Your task to perform on an android device: Search for the best rated headphones on Amazon. Image 0: 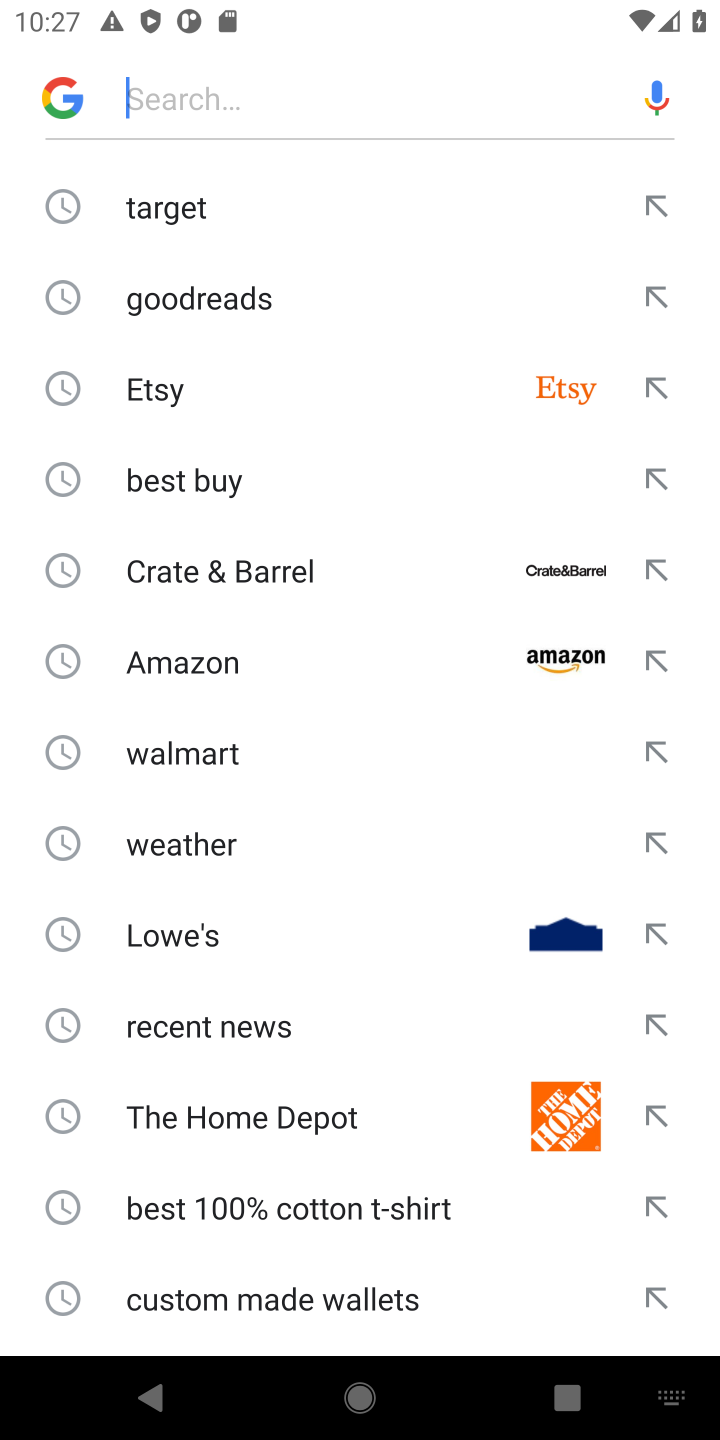
Step 0: click (208, 655)
Your task to perform on an android device: Search for the best rated headphones on Amazon. Image 1: 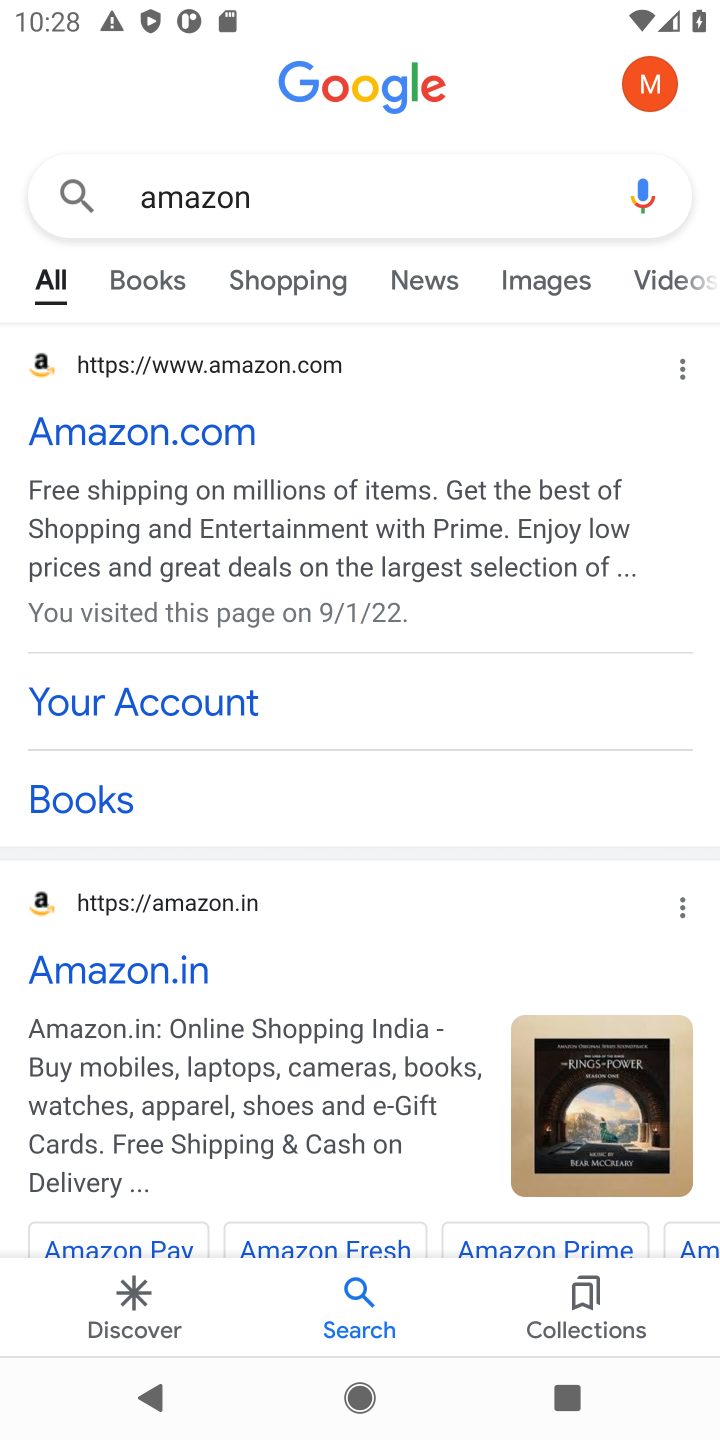
Step 1: click (150, 433)
Your task to perform on an android device: Search for the best rated headphones on Amazon. Image 2: 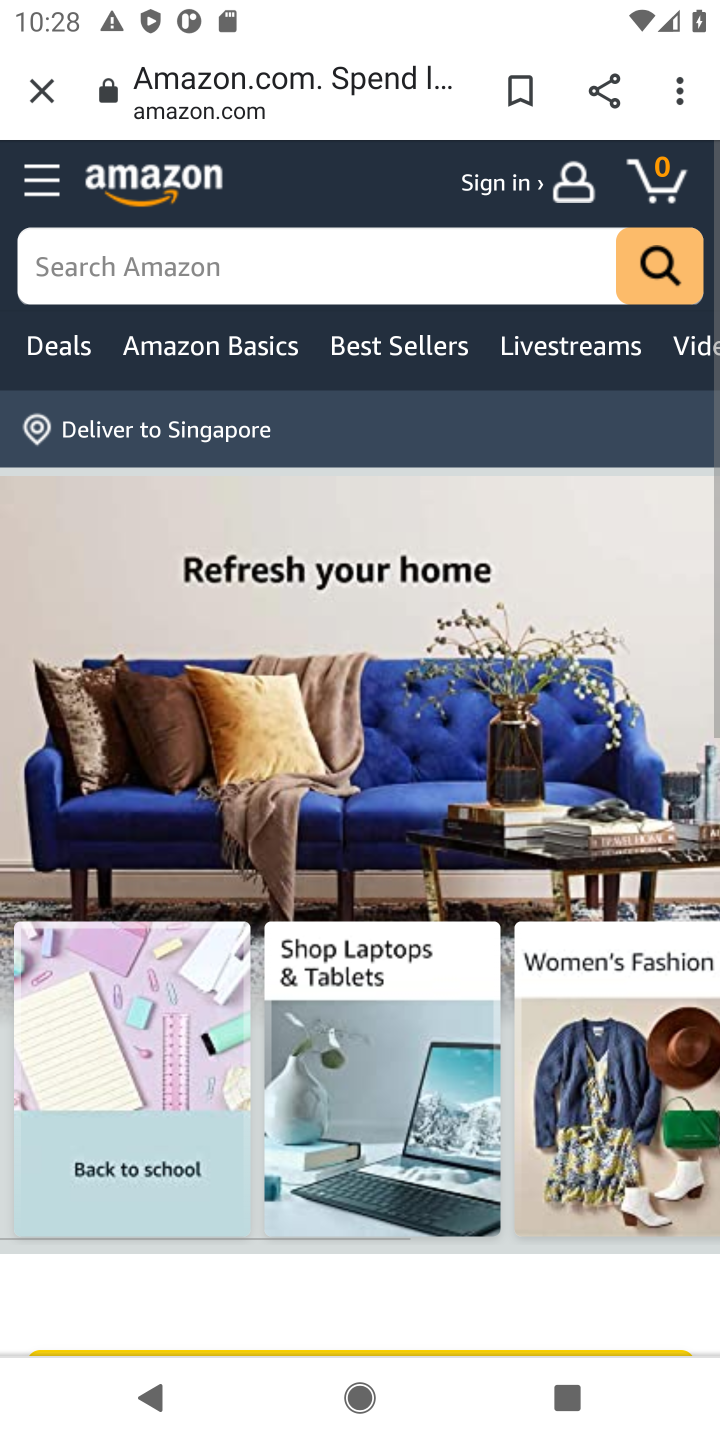
Step 2: click (317, 260)
Your task to perform on an android device: Search for the best rated headphones on Amazon. Image 3: 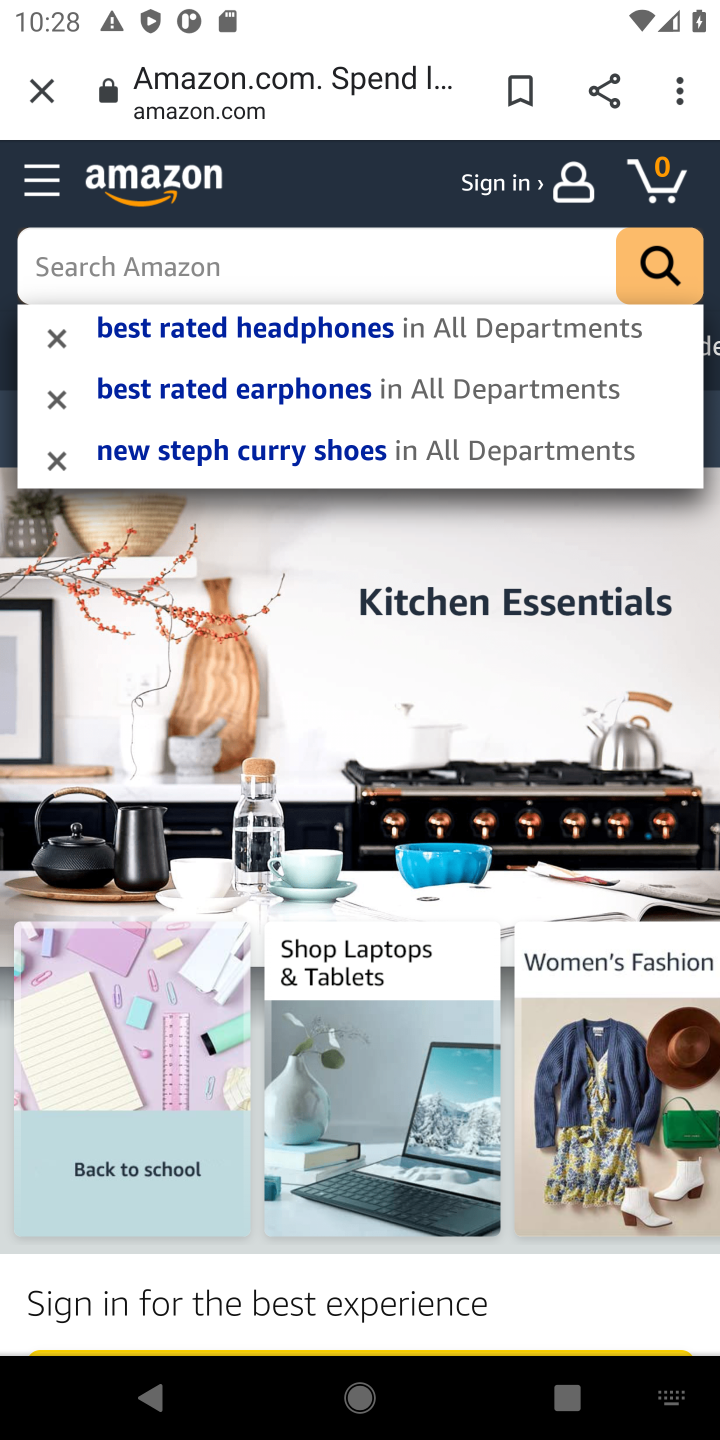
Step 3: click (280, 329)
Your task to perform on an android device: Search for the best rated headphones on Amazon. Image 4: 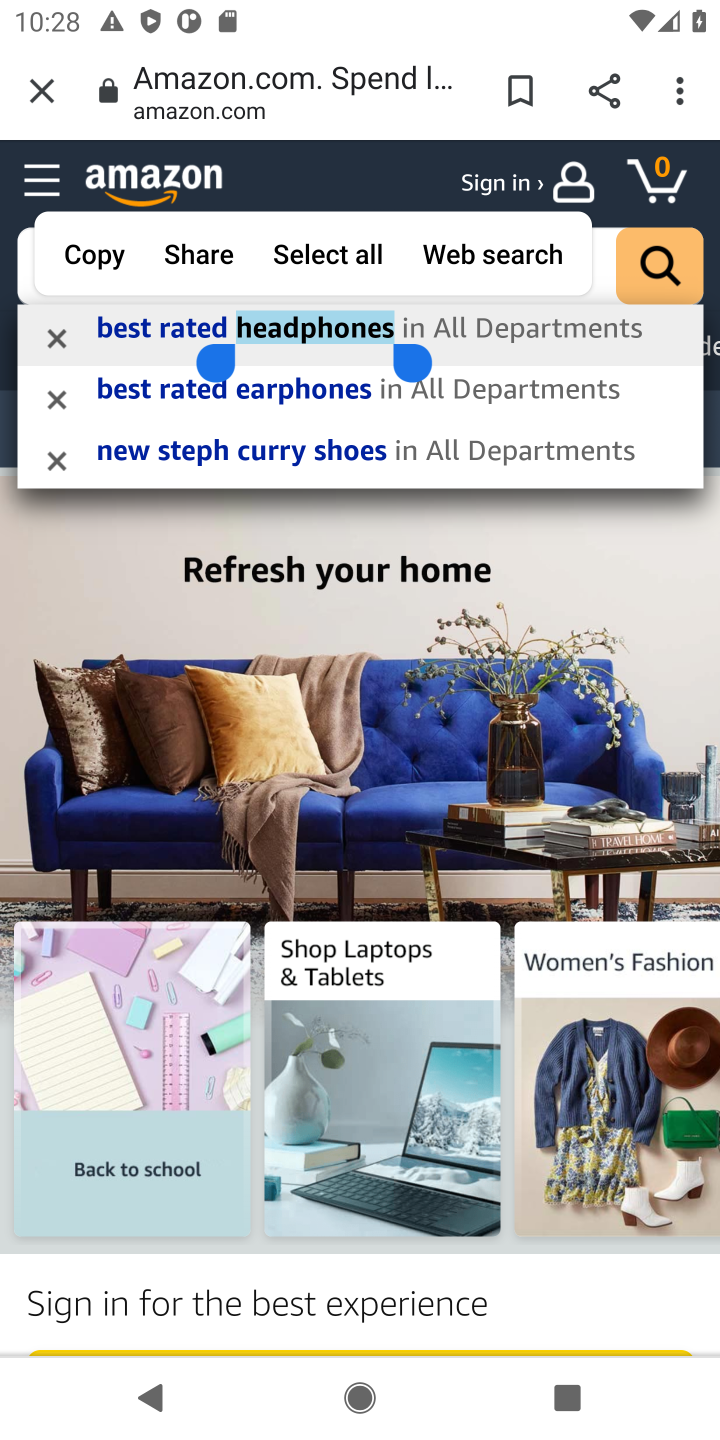
Step 4: click (454, 328)
Your task to perform on an android device: Search for the best rated headphones on Amazon. Image 5: 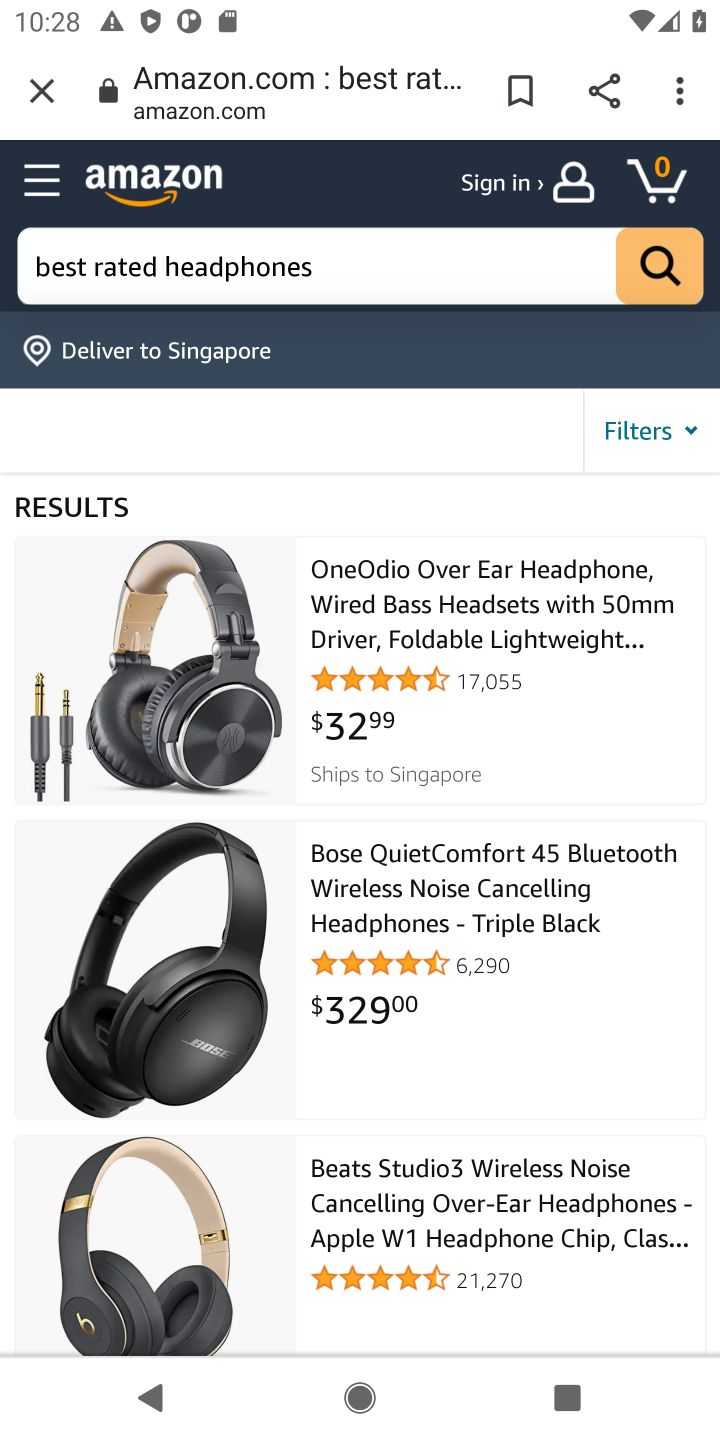
Step 5: task complete